Your task to perform on an android device: turn notification dots on Image 0: 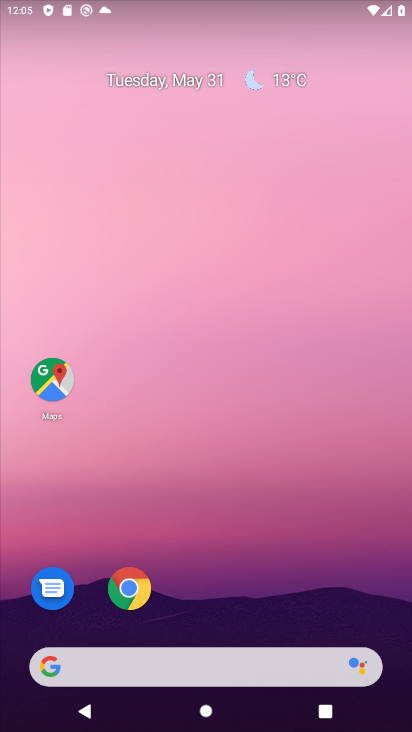
Step 0: drag from (374, 680) to (226, 185)
Your task to perform on an android device: turn notification dots on Image 1: 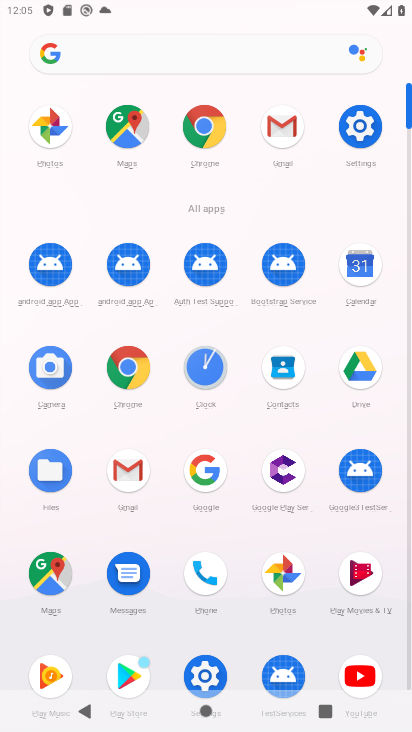
Step 1: click (199, 667)
Your task to perform on an android device: turn notification dots on Image 2: 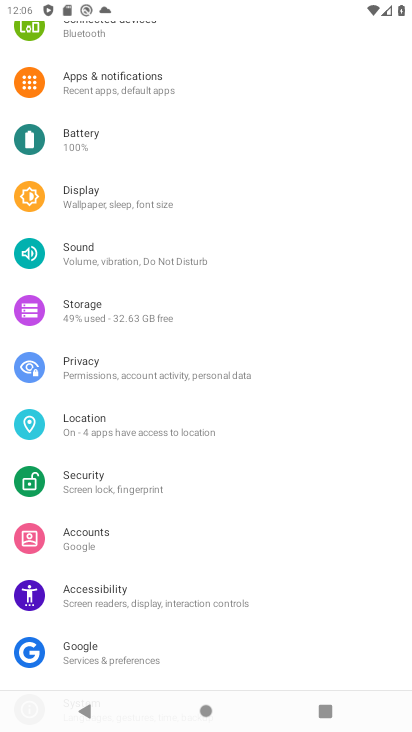
Step 2: drag from (338, 634) to (279, 226)
Your task to perform on an android device: turn notification dots on Image 3: 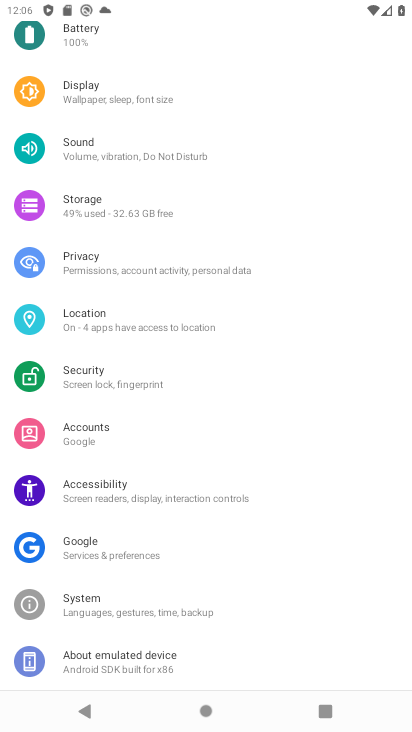
Step 3: drag from (314, 164) to (398, 428)
Your task to perform on an android device: turn notification dots on Image 4: 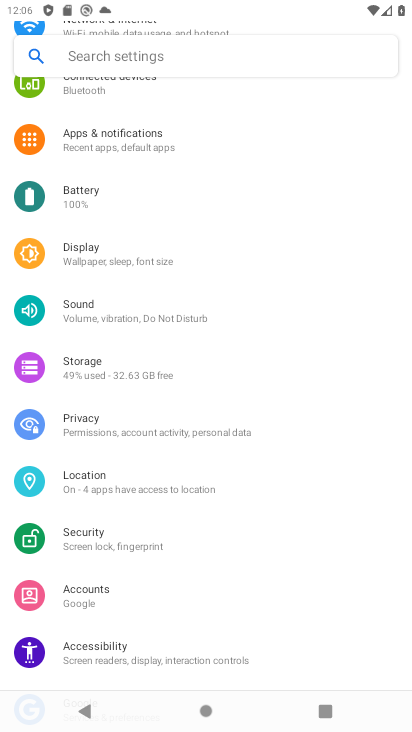
Step 4: drag from (263, 155) to (353, 524)
Your task to perform on an android device: turn notification dots on Image 5: 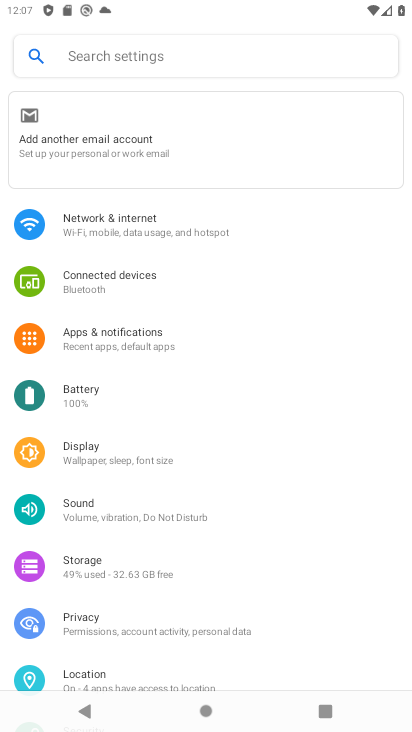
Step 5: click (124, 339)
Your task to perform on an android device: turn notification dots on Image 6: 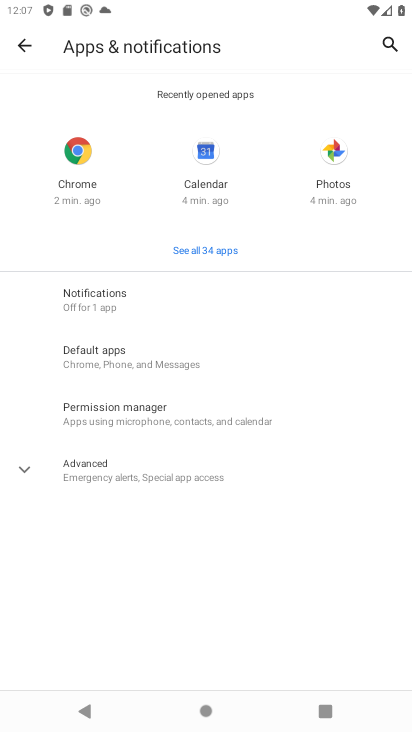
Step 6: click (101, 296)
Your task to perform on an android device: turn notification dots on Image 7: 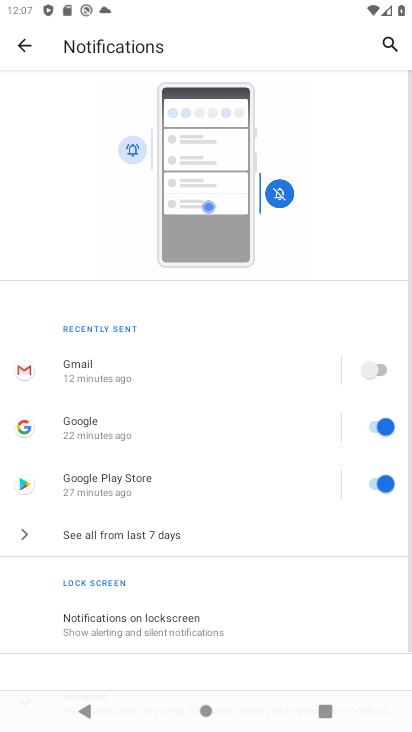
Step 7: drag from (236, 516) to (214, 176)
Your task to perform on an android device: turn notification dots on Image 8: 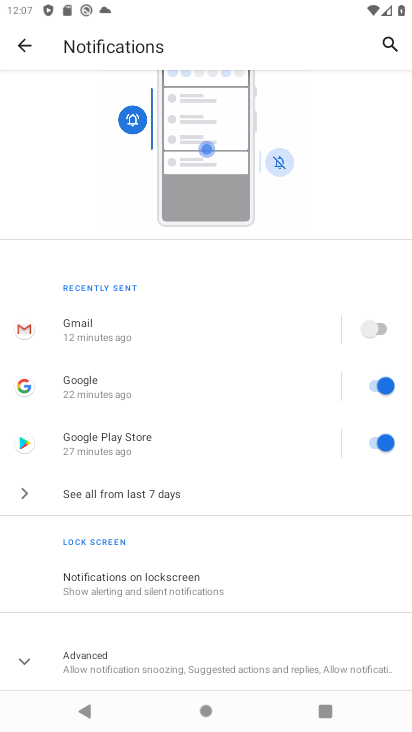
Step 8: click (19, 659)
Your task to perform on an android device: turn notification dots on Image 9: 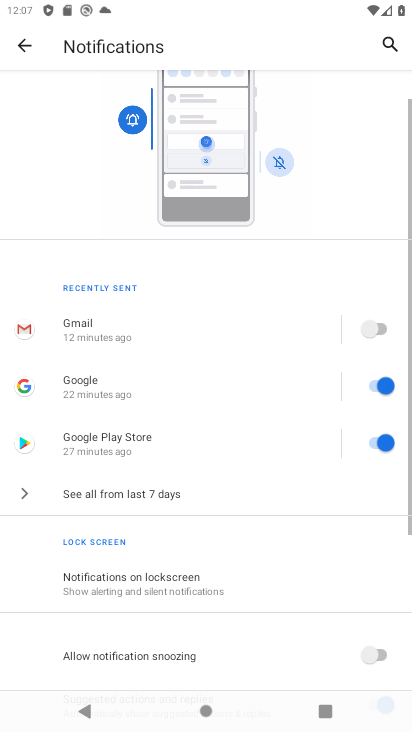
Step 9: drag from (248, 606) to (219, 321)
Your task to perform on an android device: turn notification dots on Image 10: 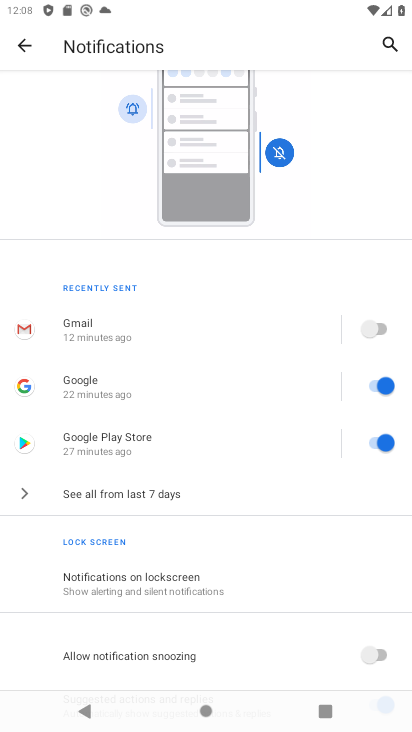
Step 10: drag from (270, 561) to (229, 322)
Your task to perform on an android device: turn notification dots on Image 11: 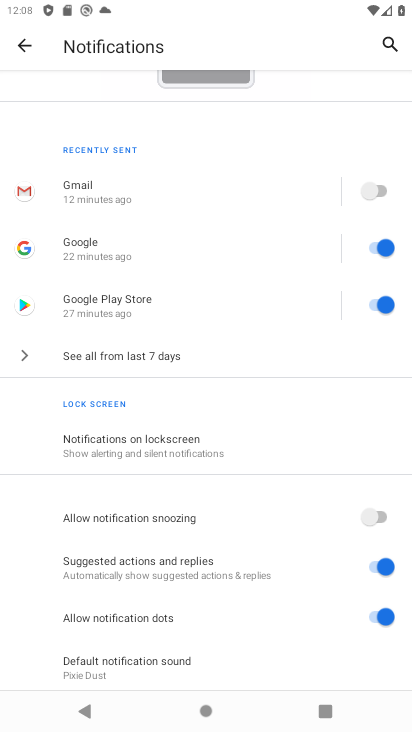
Step 11: drag from (280, 641) to (233, 229)
Your task to perform on an android device: turn notification dots on Image 12: 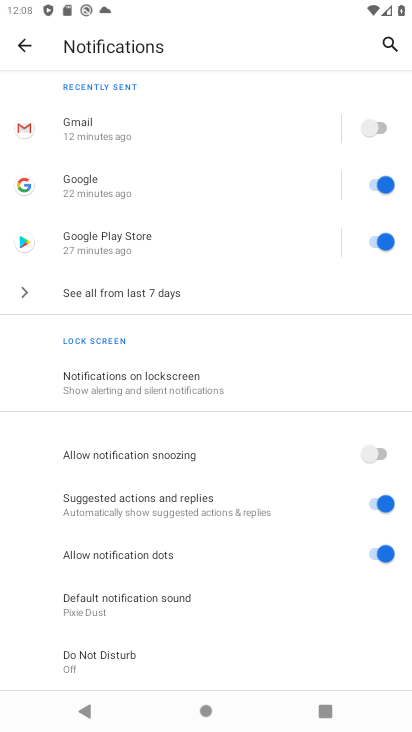
Step 12: drag from (231, 570) to (203, 246)
Your task to perform on an android device: turn notification dots on Image 13: 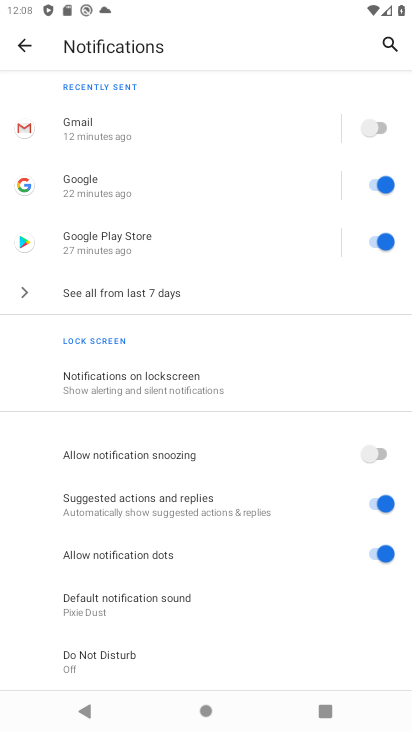
Step 13: click (380, 553)
Your task to perform on an android device: turn notification dots on Image 14: 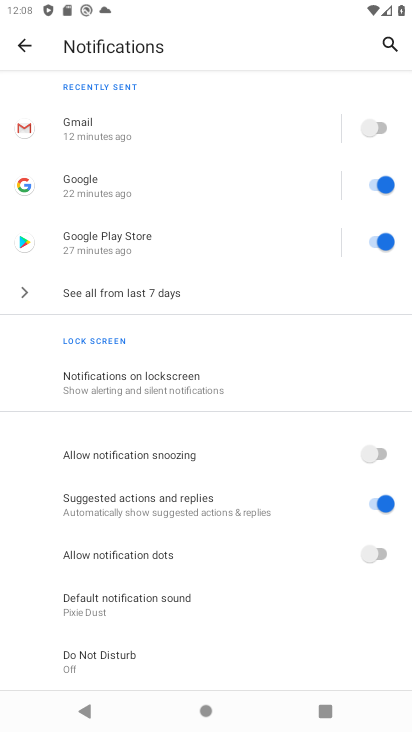
Step 14: click (378, 556)
Your task to perform on an android device: turn notification dots on Image 15: 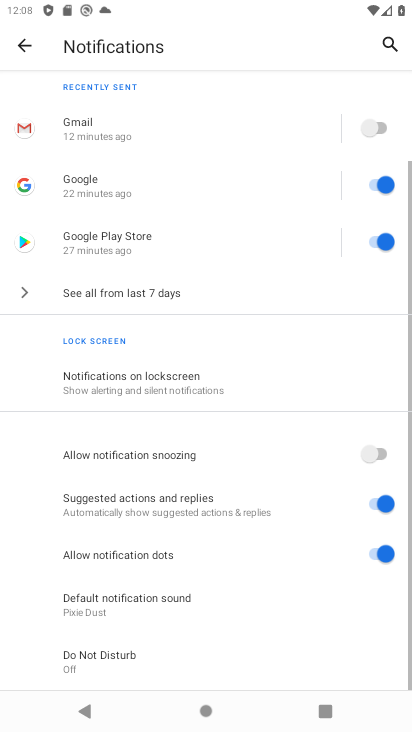
Step 15: task complete